Your task to perform on an android device: find which apps use the phone's location Image 0: 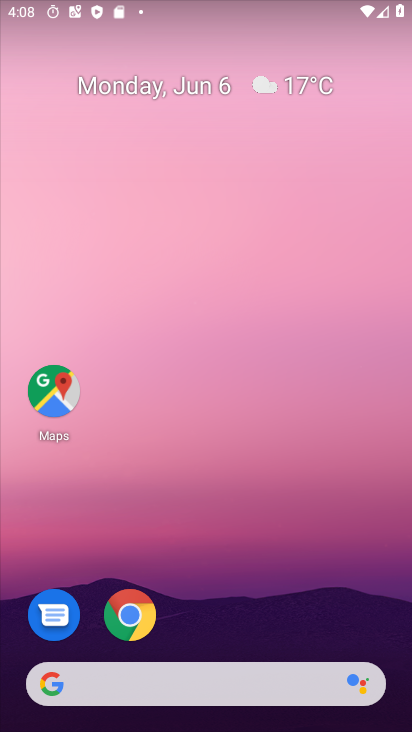
Step 0: drag from (296, 697) to (297, 68)
Your task to perform on an android device: find which apps use the phone's location Image 1: 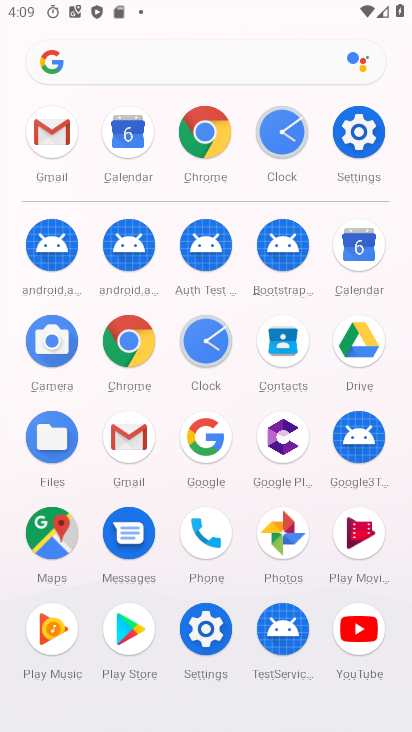
Step 1: click (129, 335)
Your task to perform on an android device: find which apps use the phone's location Image 2: 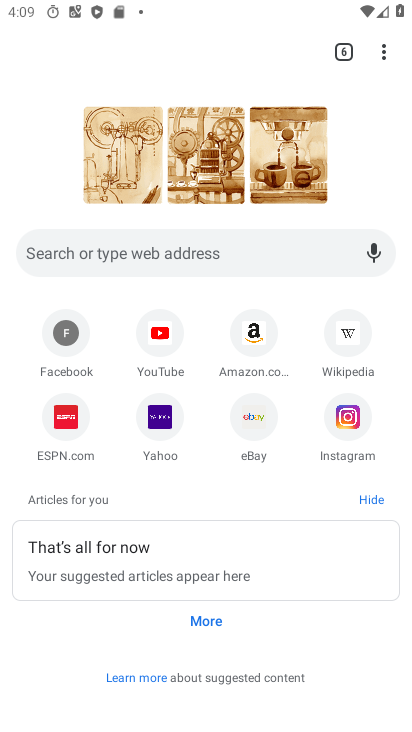
Step 2: click (381, 51)
Your task to perform on an android device: find which apps use the phone's location Image 3: 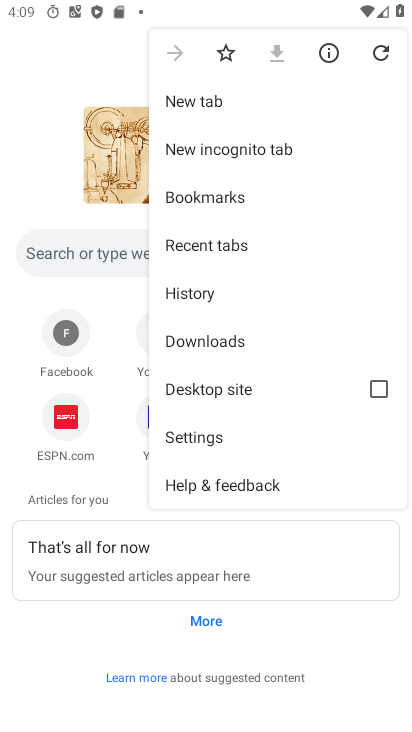
Step 3: click (225, 432)
Your task to perform on an android device: find which apps use the phone's location Image 4: 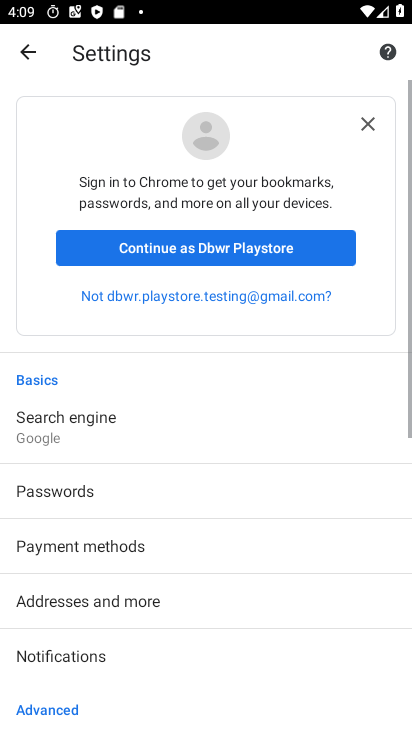
Step 4: drag from (190, 629) to (231, 105)
Your task to perform on an android device: find which apps use the phone's location Image 5: 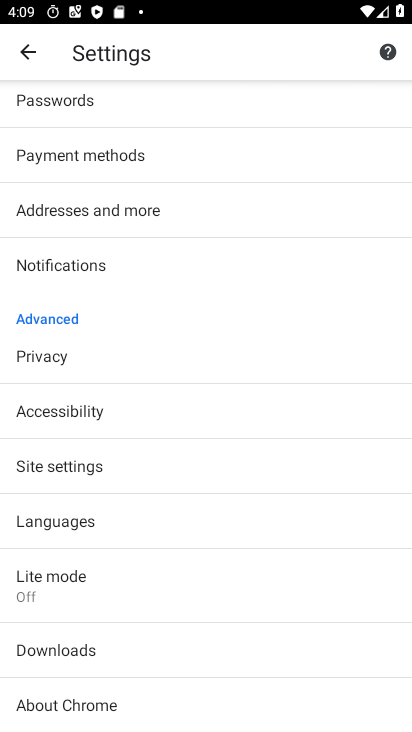
Step 5: press home button
Your task to perform on an android device: find which apps use the phone's location Image 6: 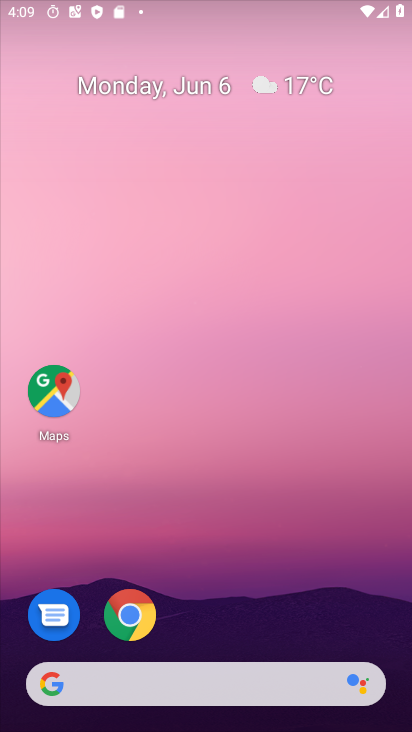
Step 6: drag from (201, 652) to (281, 87)
Your task to perform on an android device: find which apps use the phone's location Image 7: 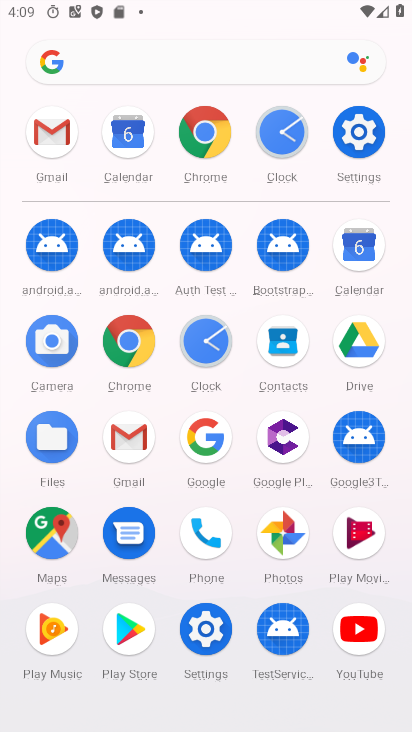
Step 7: click (354, 131)
Your task to perform on an android device: find which apps use the phone's location Image 8: 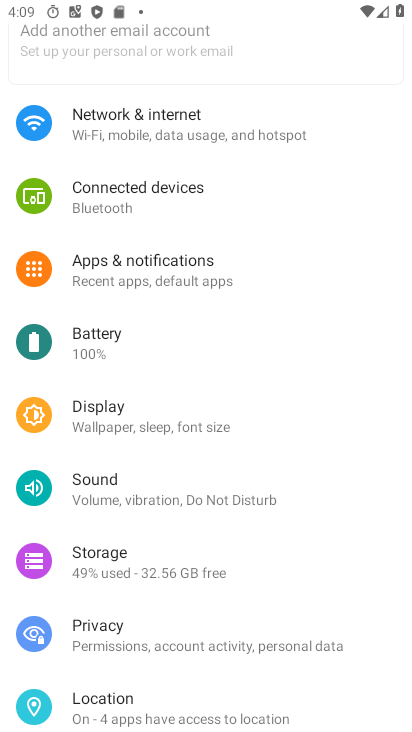
Step 8: drag from (233, 577) to (258, 197)
Your task to perform on an android device: find which apps use the phone's location Image 9: 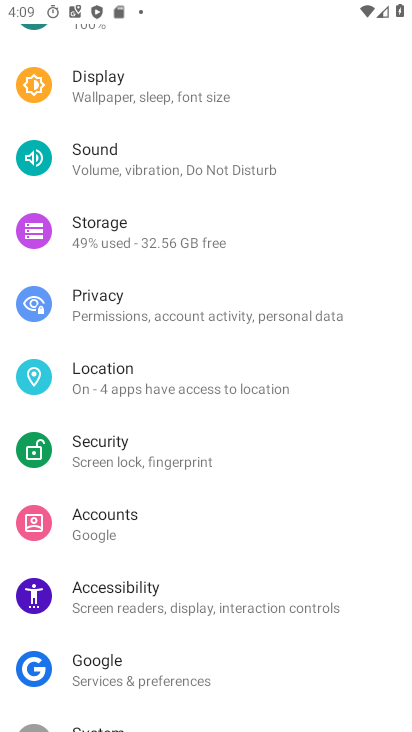
Step 9: click (205, 374)
Your task to perform on an android device: find which apps use the phone's location Image 10: 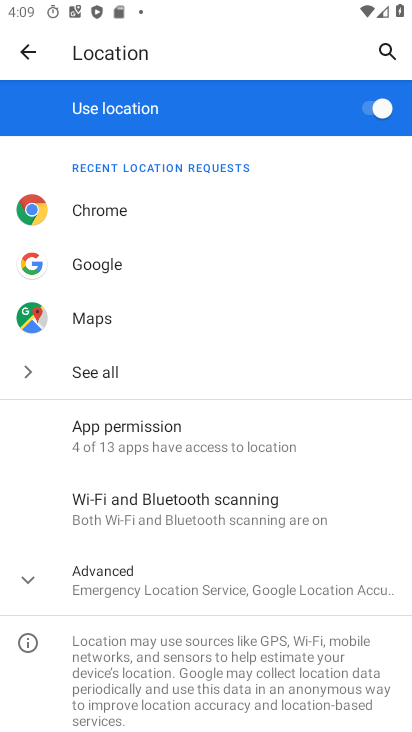
Step 10: click (151, 429)
Your task to perform on an android device: find which apps use the phone's location Image 11: 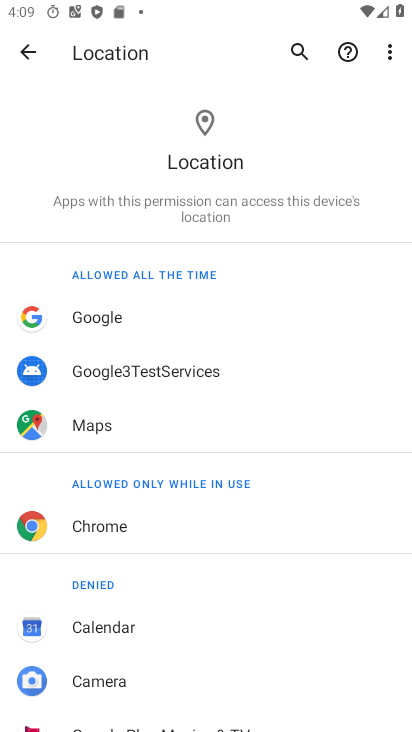
Step 11: task complete